Your task to perform on an android device: Open my contact list Image 0: 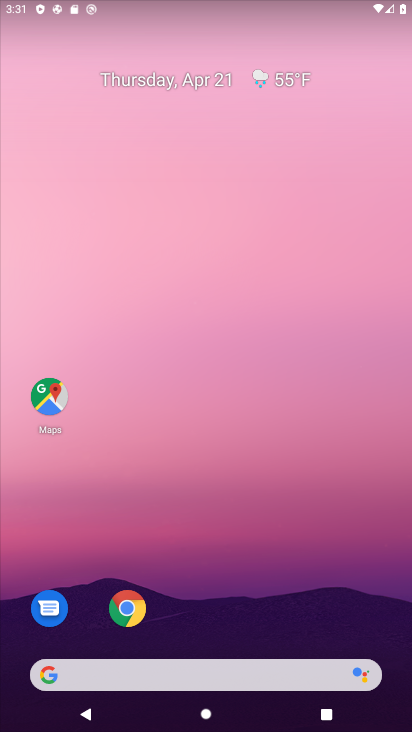
Step 0: click (244, 489)
Your task to perform on an android device: Open my contact list Image 1: 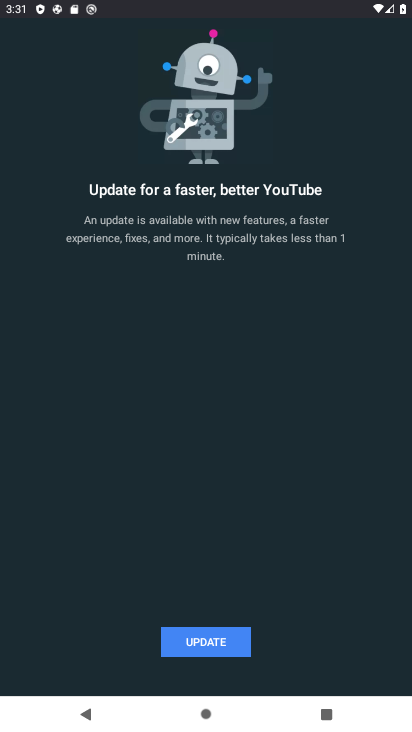
Step 1: press home button
Your task to perform on an android device: Open my contact list Image 2: 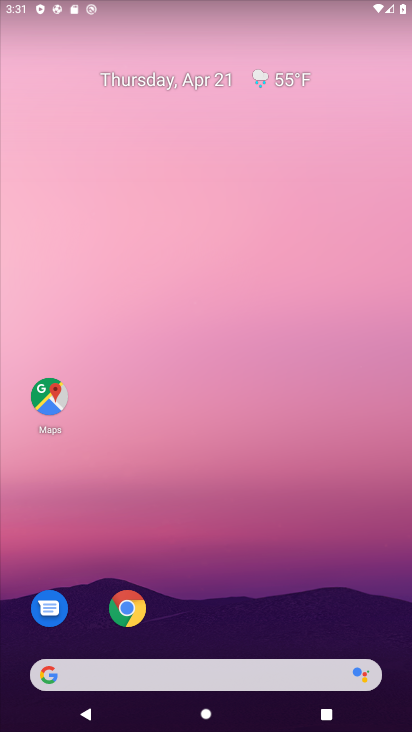
Step 2: drag from (221, 528) to (257, 284)
Your task to perform on an android device: Open my contact list Image 3: 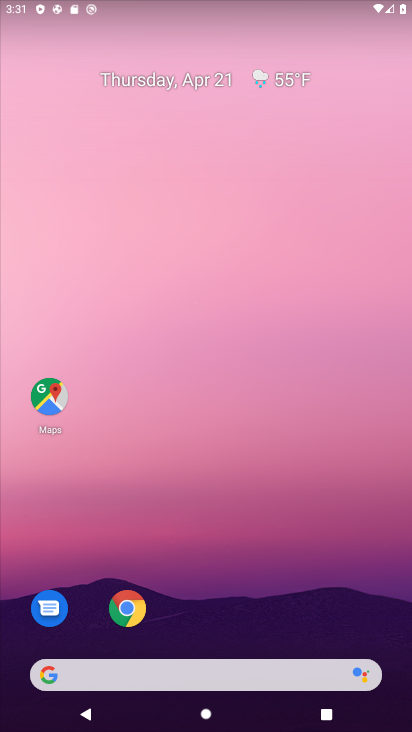
Step 3: drag from (252, 582) to (264, 232)
Your task to perform on an android device: Open my contact list Image 4: 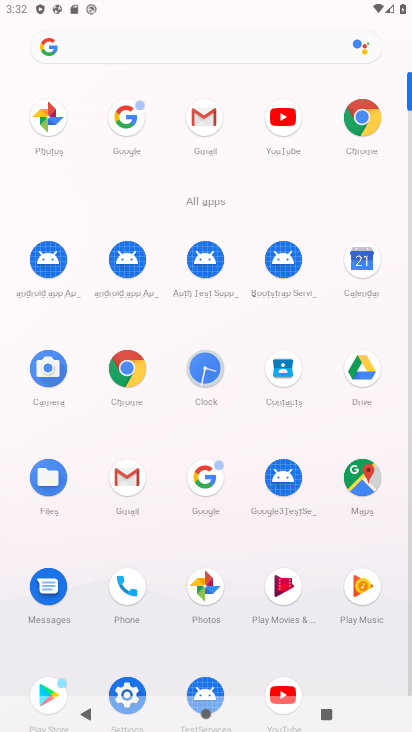
Step 4: click (281, 379)
Your task to perform on an android device: Open my contact list Image 5: 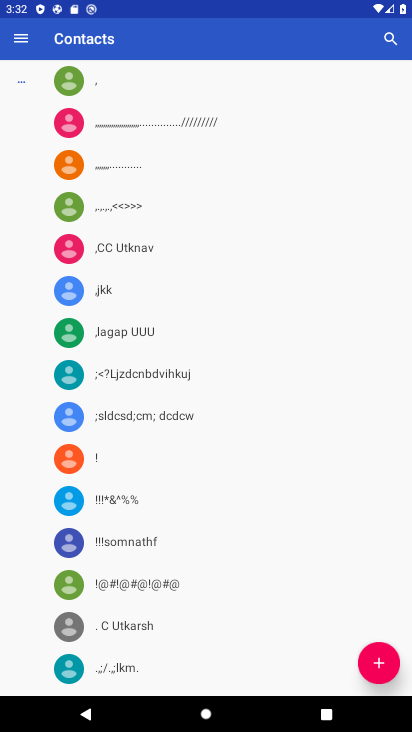
Step 5: task complete